Your task to perform on an android device: find snoozed emails in the gmail app Image 0: 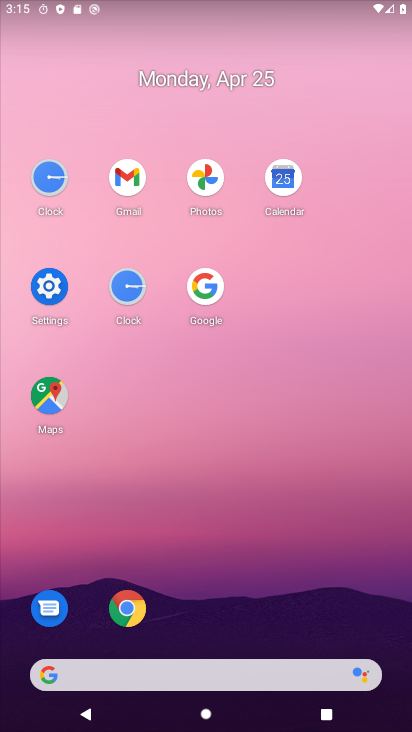
Step 0: click (123, 177)
Your task to perform on an android device: find snoozed emails in the gmail app Image 1: 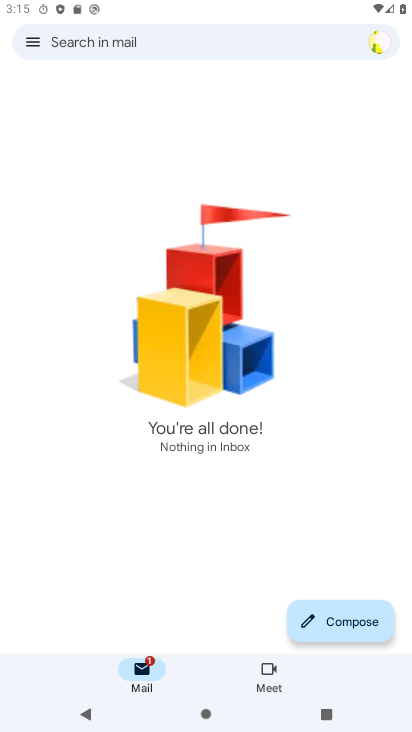
Step 1: click (36, 40)
Your task to perform on an android device: find snoozed emails in the gmail app Image 2: 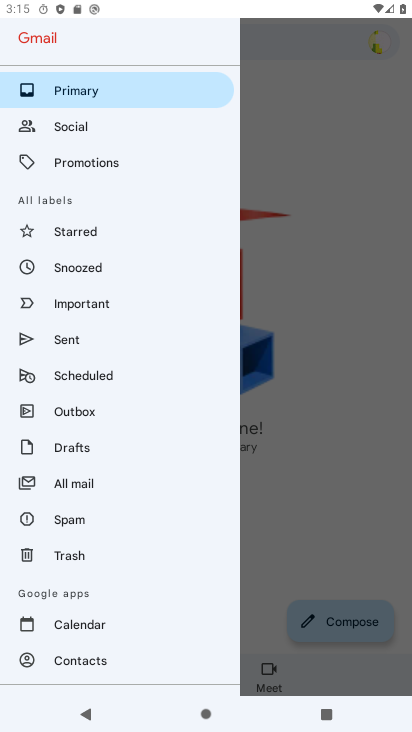
Step 2: click (89, 265)
Your task to perform on an android device: find snoozed emails in the gmail app Image 3: 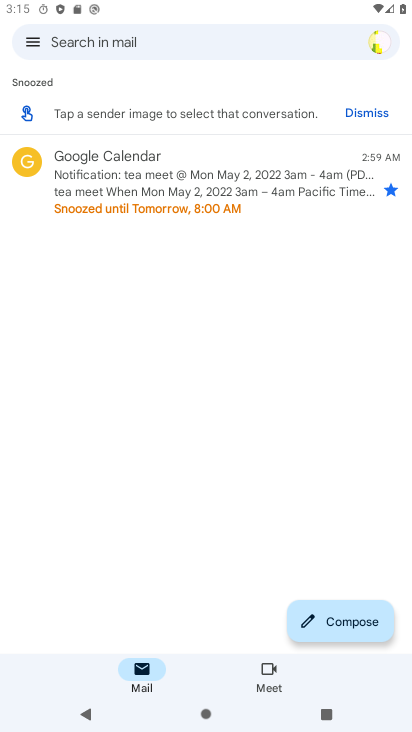
Step 3: task complete